Your task to perform on an android device: open app "DuckDuckGo Privacy Browser" (install if not already installed), go to login, and select forgot password Image 0: 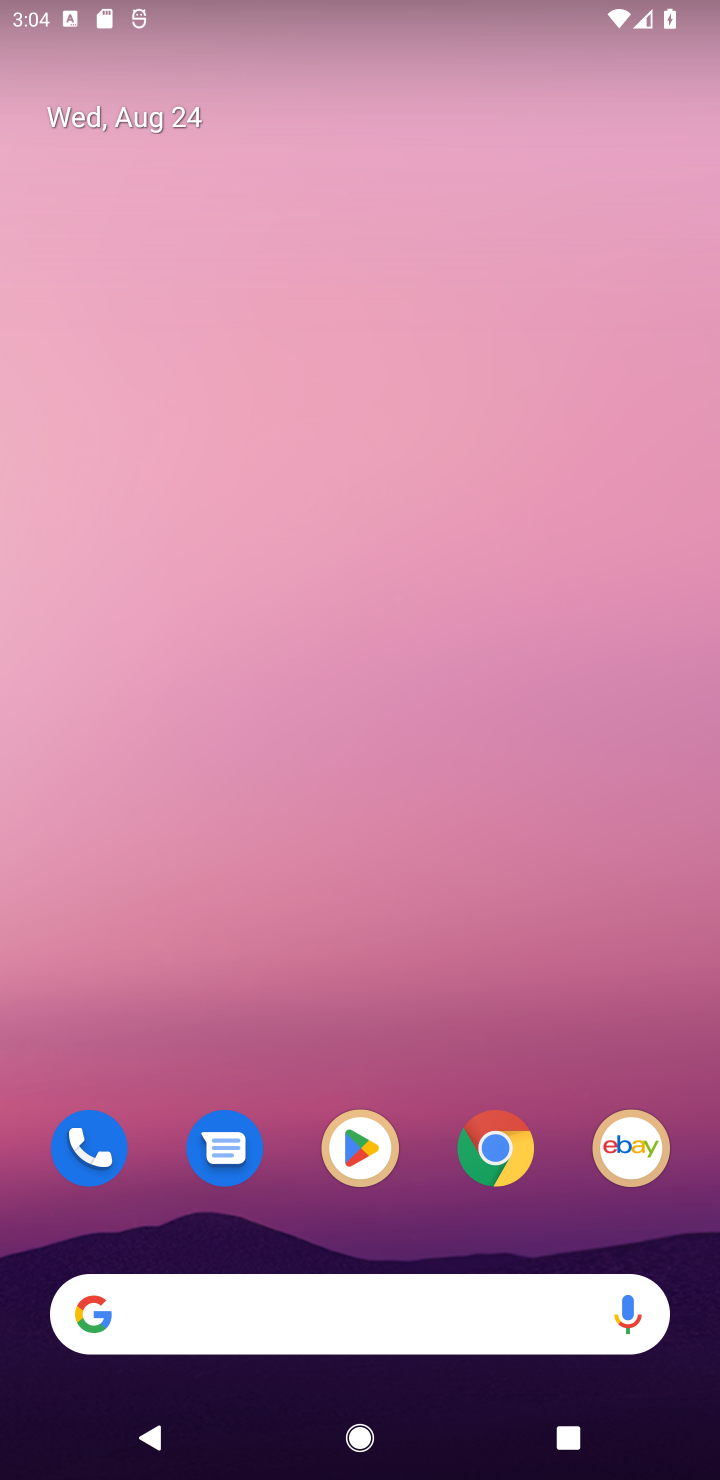
Step 0: drag from (331, 1183) to (441, 276)
Your task to perform on an android device: open app "DuckDuckGo Privacy Browser" (install if not already installed), go to login, and select forgot password Image 1: 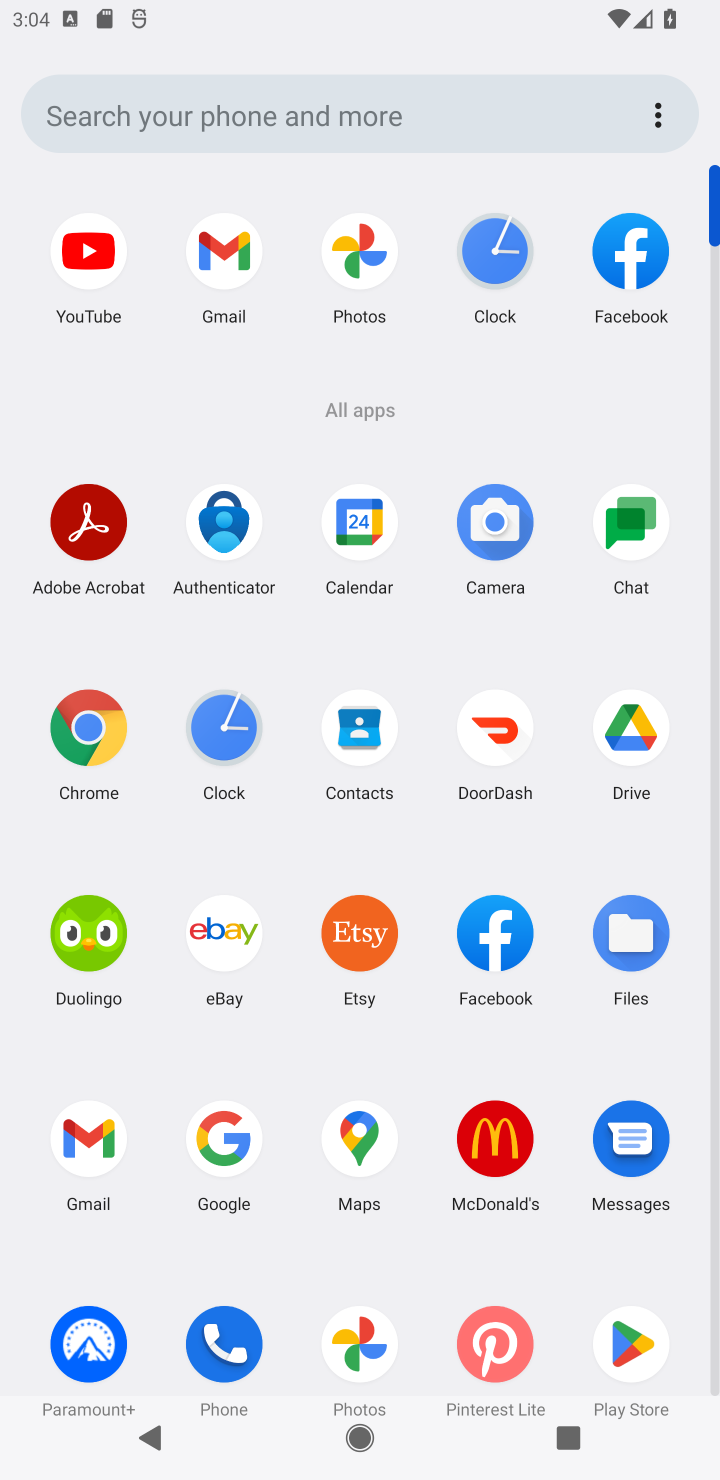
Step 1: click (626, 1340)
Your task to perform on an android device: open app "DuckDuckGo Privacy Browser" (install if not already installed), go to login, and select forgot password Image 2: 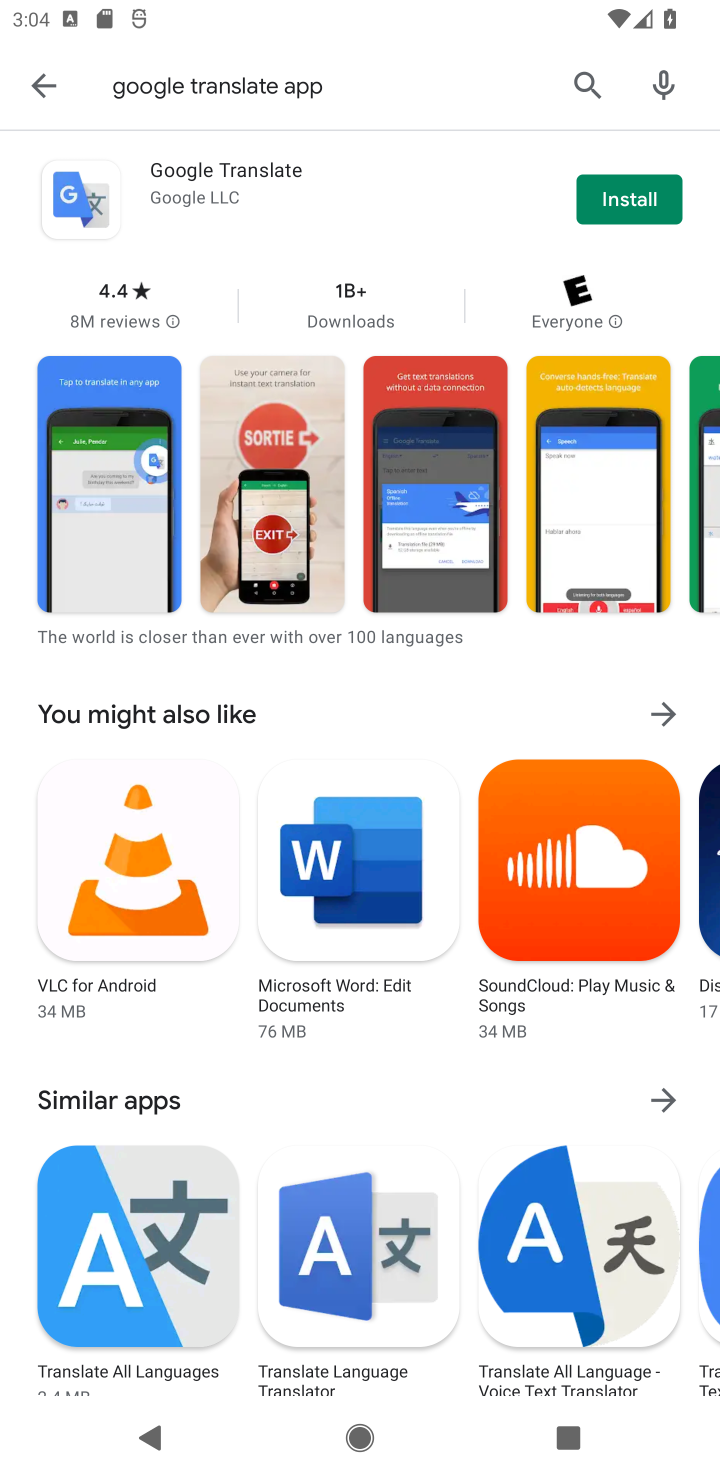
Step 2: click (41, 83)
Your task to perform on an android device: open app "DuckDuckGo Privacy Browser" (install if not already installed), go to login, and select forgot password Image 3: 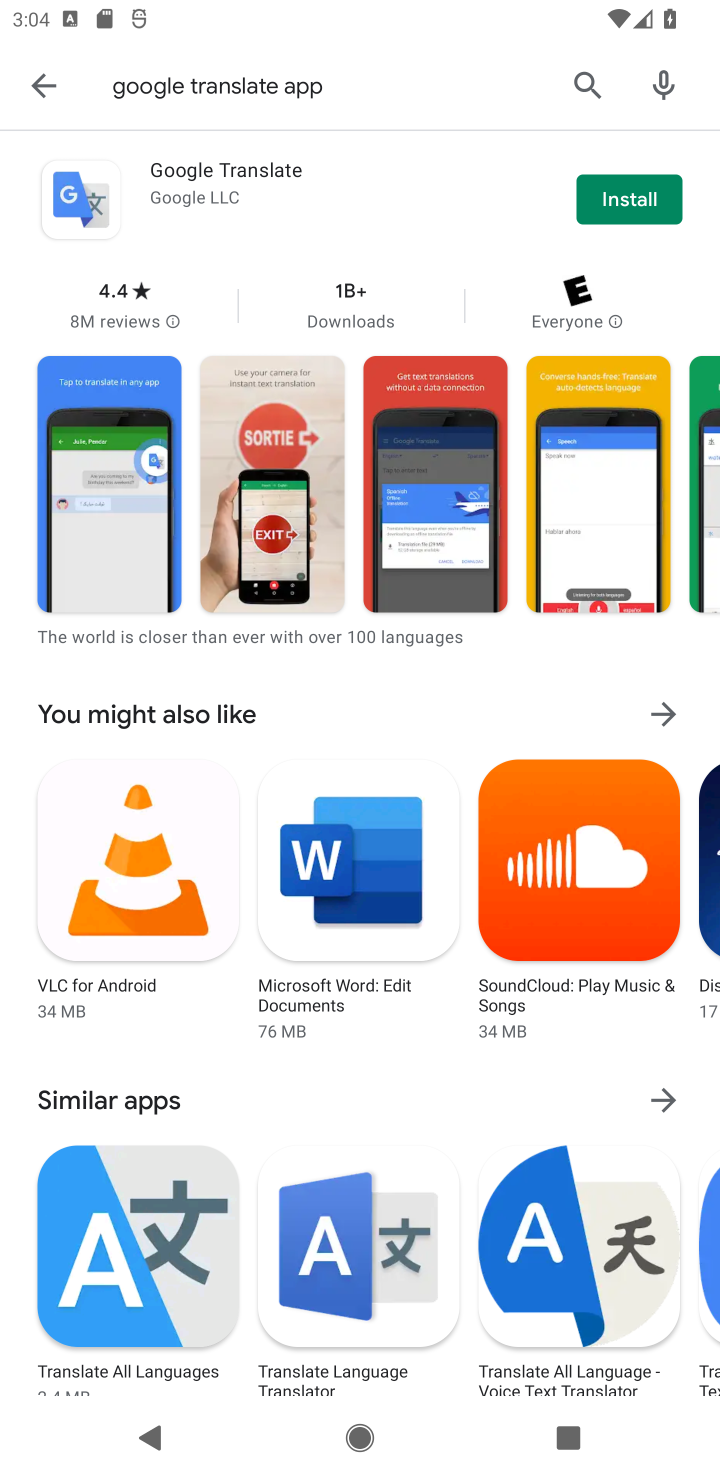
Step 3: click (41, 83)
Your task to perform on an android device: open app "DuckDuckGo Privacy Browser" (install if not already installed), go to login, and select forgot password Image 4: 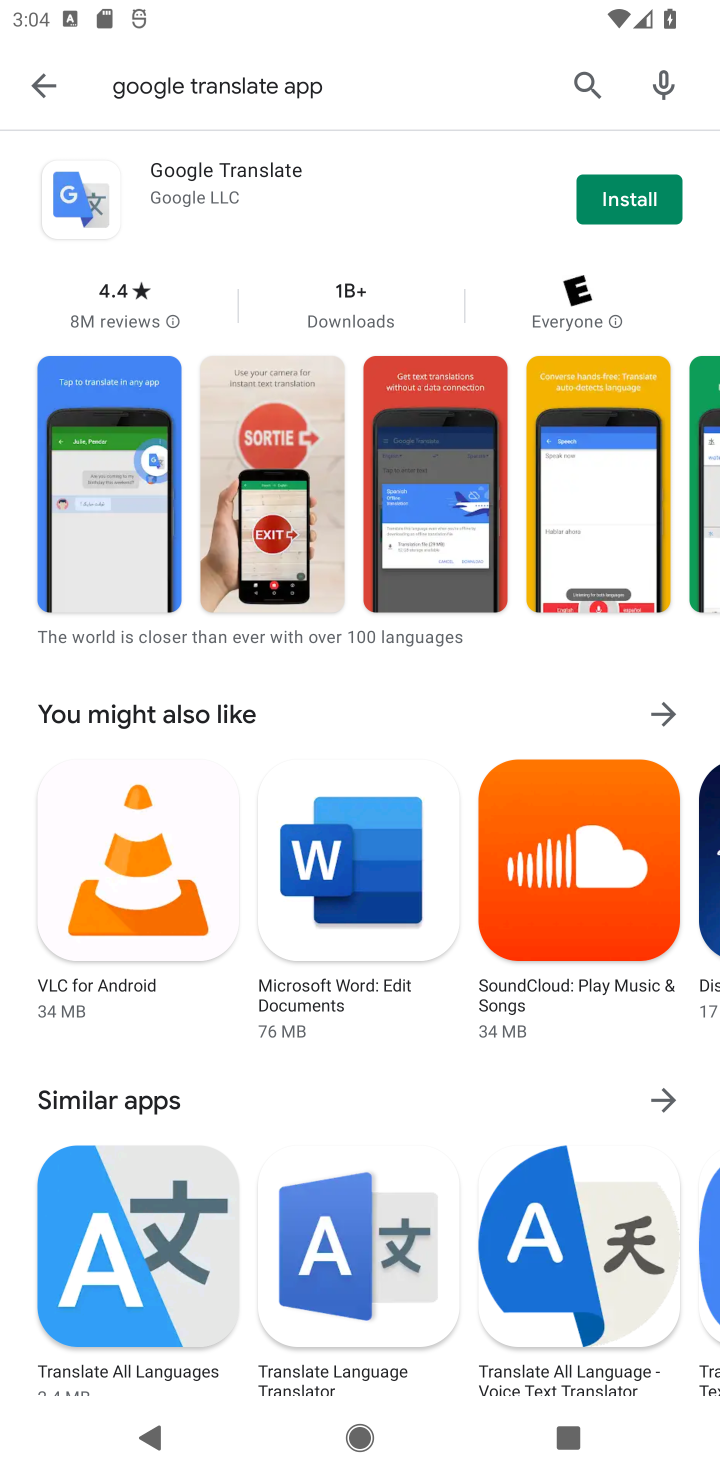
Step 4: click (595, 75)
Your task to perform on an android device: open app "DuckDuckGo Privacy Browser" (install if not already installed), go to login, and select forgot password Image 5: 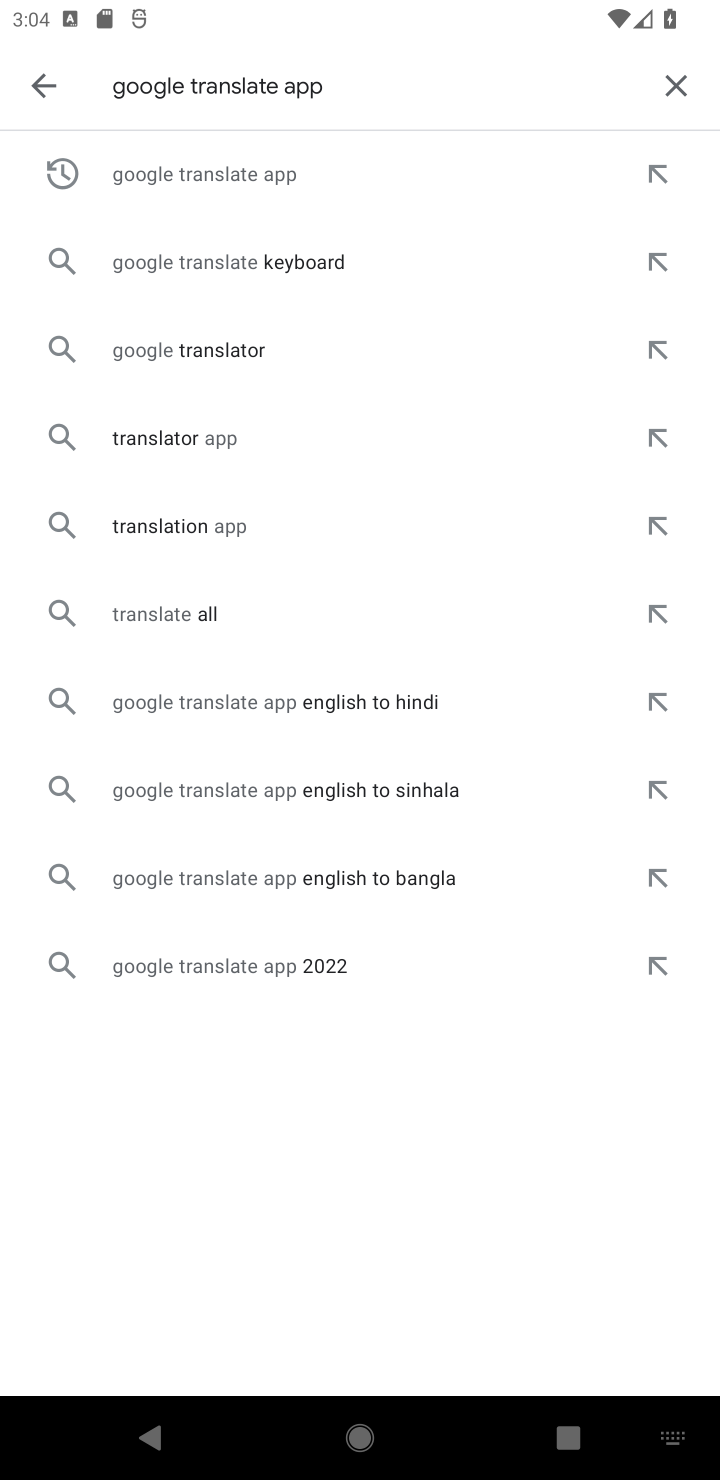
Step 5: click (691, 93)
Your task to perform on an android device: open app "DuckDuckGo Privacy Browser" (install if not already installed), go to login, and select forgot password Image 6: 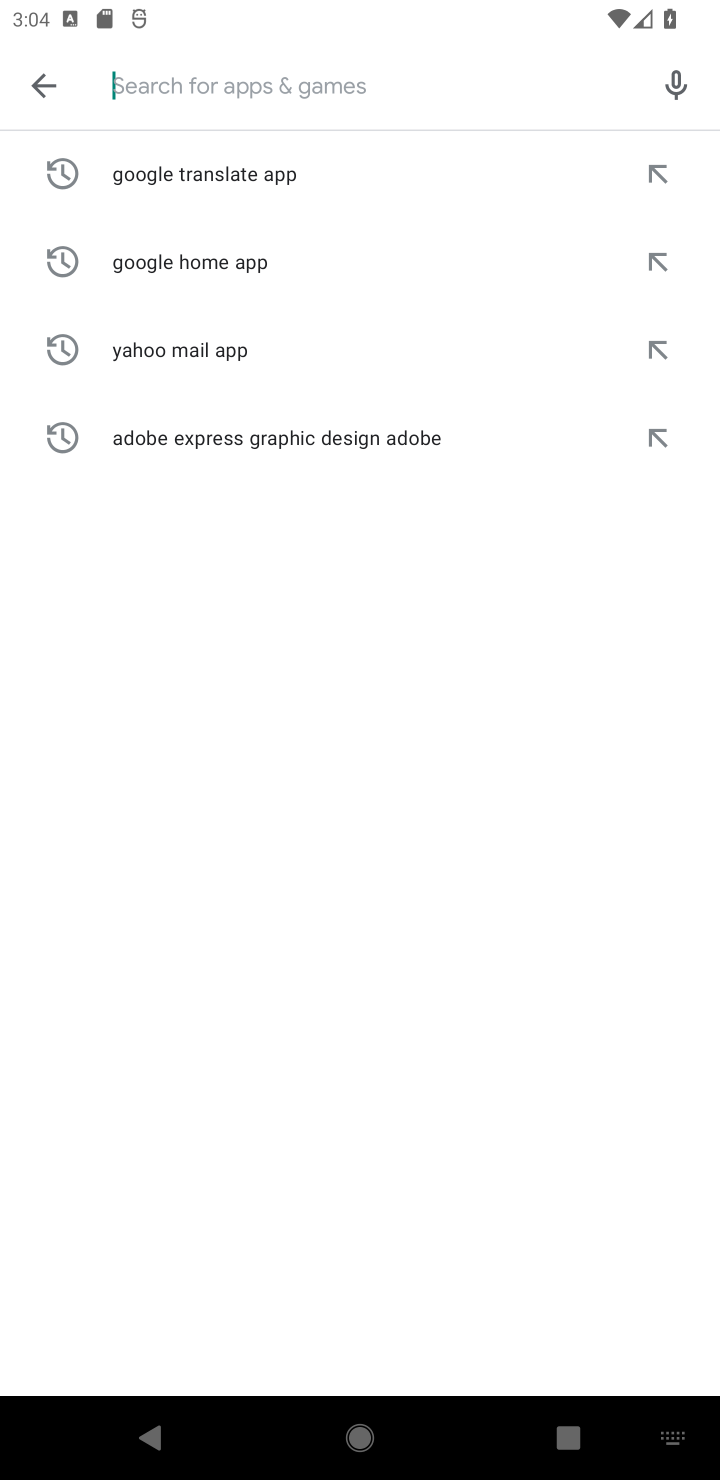
Step 6: click (288, 82)
Your task to perform on an android device: open app "DuckDuckGo Privacy Browser" (install if not already installed), go to login, and select forgot password Image 7: 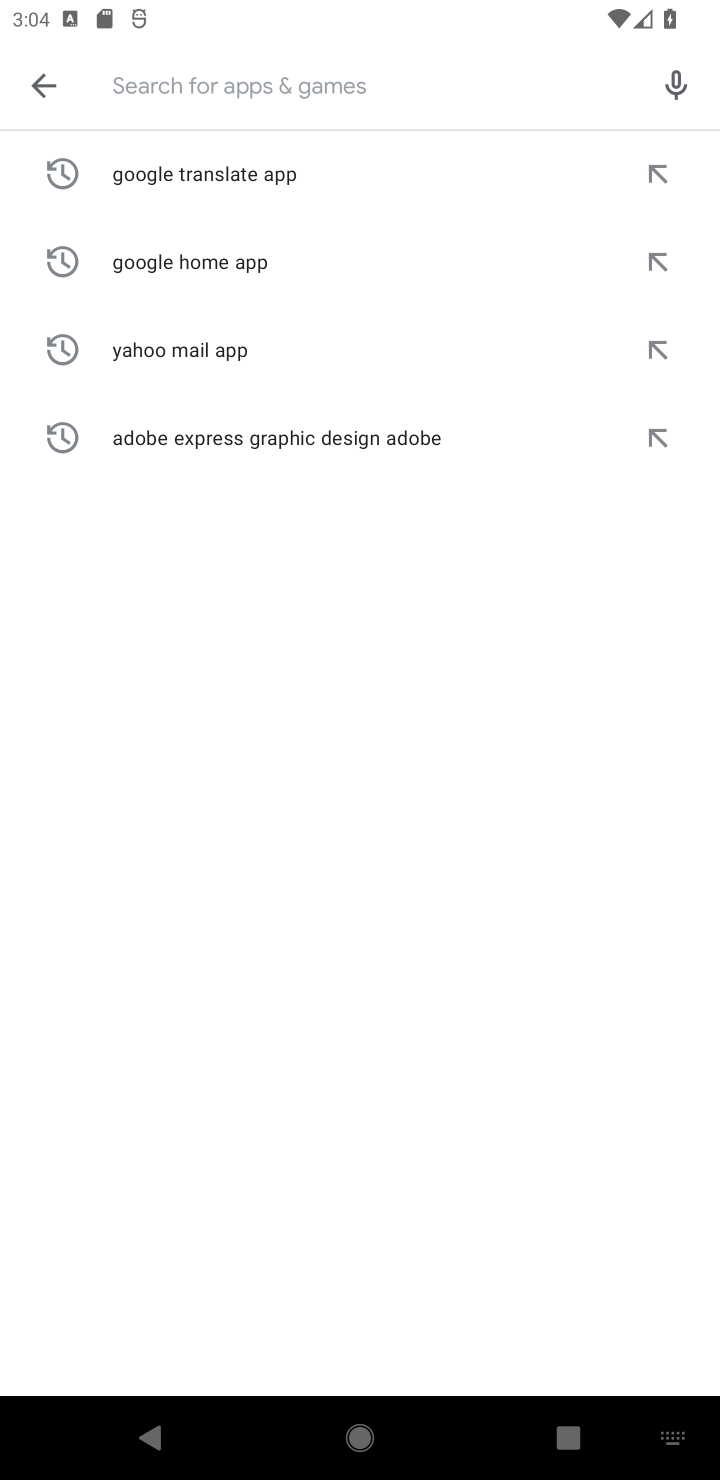
Step 7: type "DuckDuckGo Privacy Browser "
Your task to perform on an android device: open app "DuckDuckGo Privacy Browser" (install if not already installed), go to login, and select forgot password Image 8: 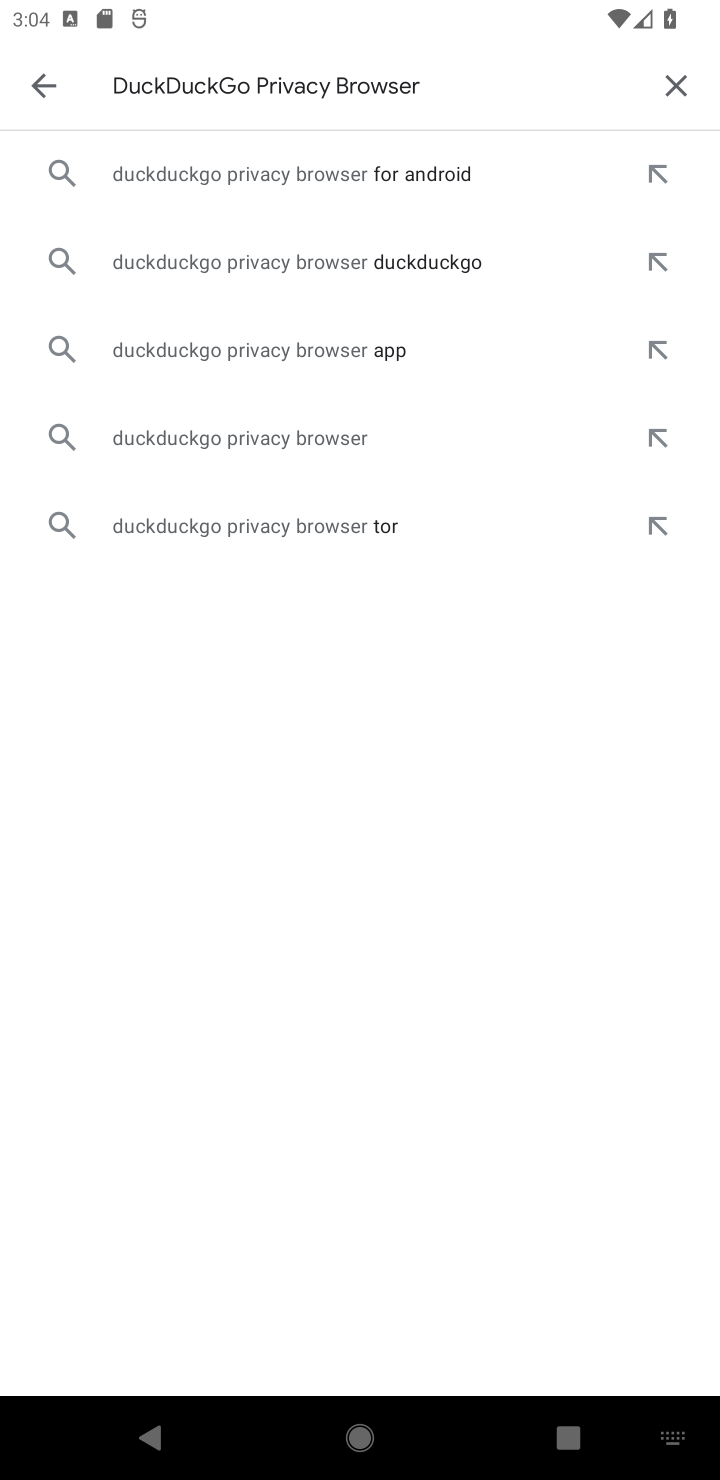
Step 8: click (242, 171)
Your task to perform on an android device: open app "DuckDuckGo Privacy Browser" (install if not already installed), go to login, and select forgot password Image 9: 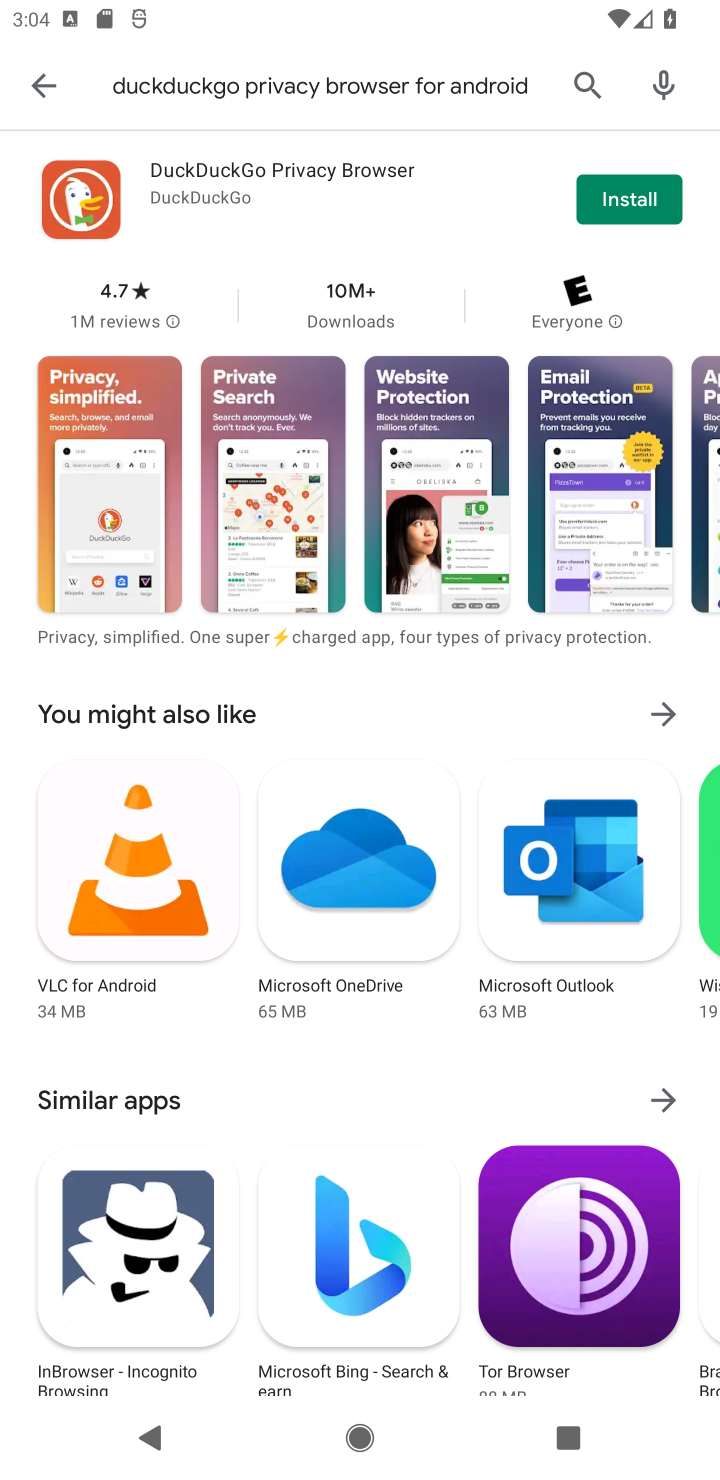
Step 9: click (606, 199)
Your task to perform on an android device: open app "DuckDuckGo Privacy Browser" (install if not already installed), go to login, and select forgot password Image 10: 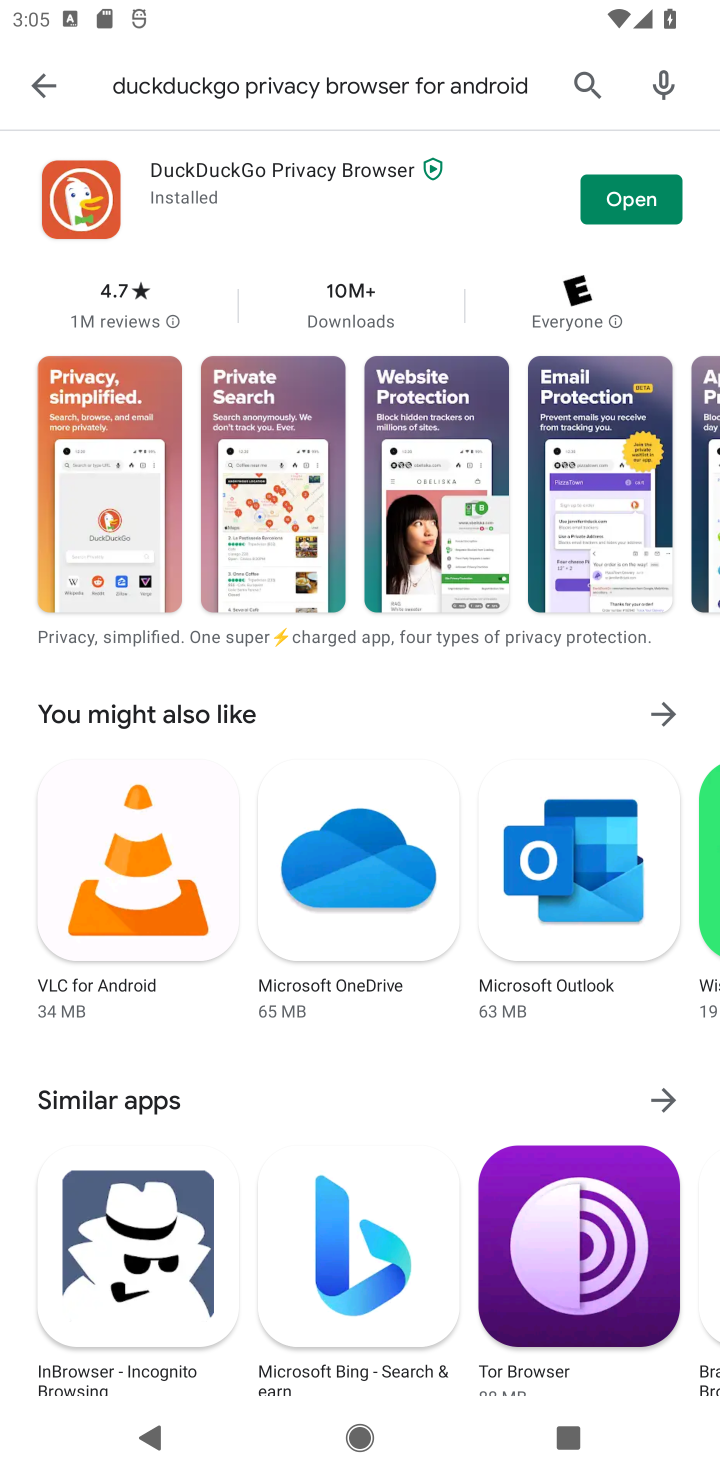
Step 10: click (617, 200)
Your task to perform on an android device: open app "DuckDuckGo Privacy Browser" (install if not already installed), go to login, and select forgot password Image 11: 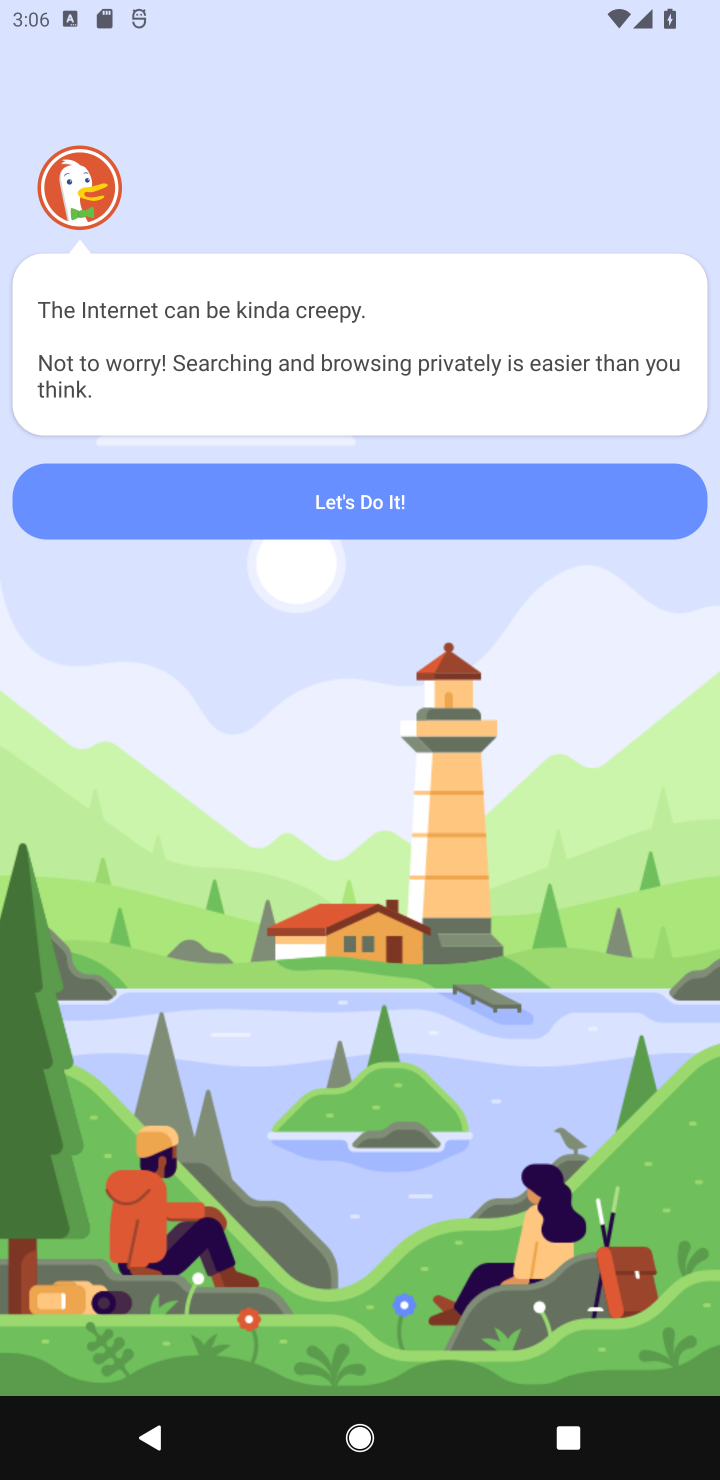
Step 11: task complete